Your task to perform on an android device: turn off airplane mode Image 0: 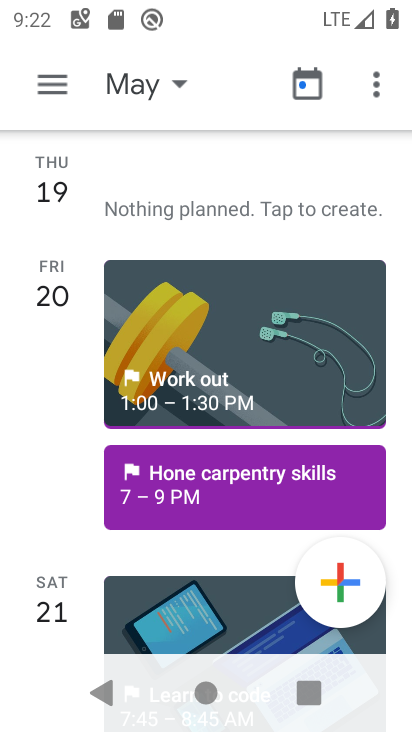
Step 0: press home button
Your task to perform on an android device: turn off airplane mode Image 1: 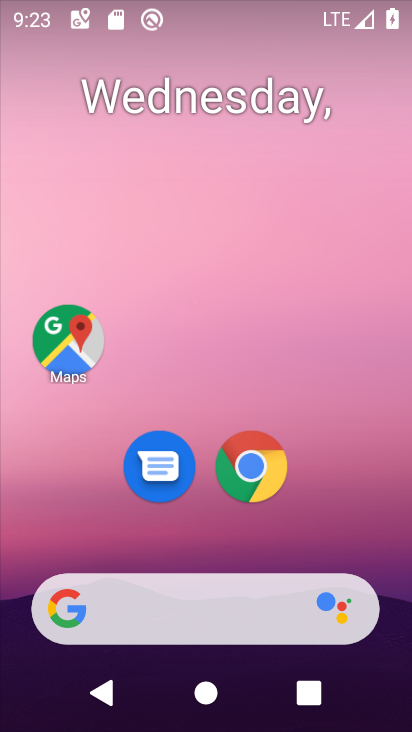
Step 1: drag from (161, 715) to (180, 195)
Your task to perform on an android device: turn off airplane mode Image 2: 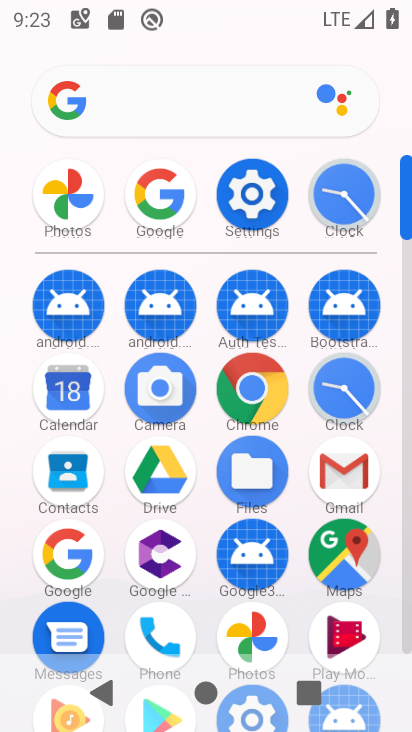
Step 2: click (257, 189)
Your task to perform on an android device: turn off airplane mode Image 3: 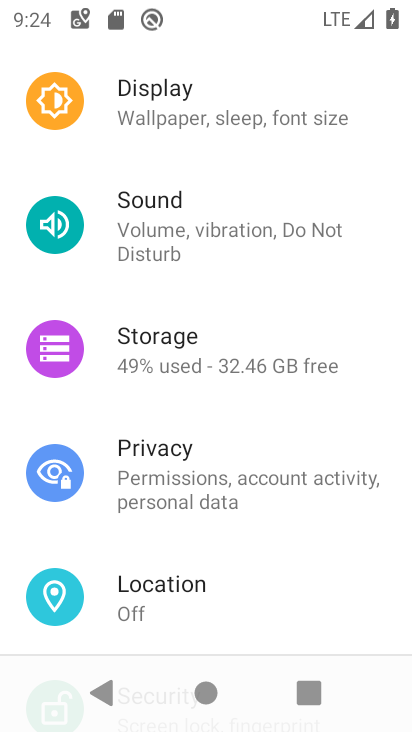
Step 3: drag from (153, 119) to (154, 524)
Your task to perform on an android device: turn off airplane mode Image 4: 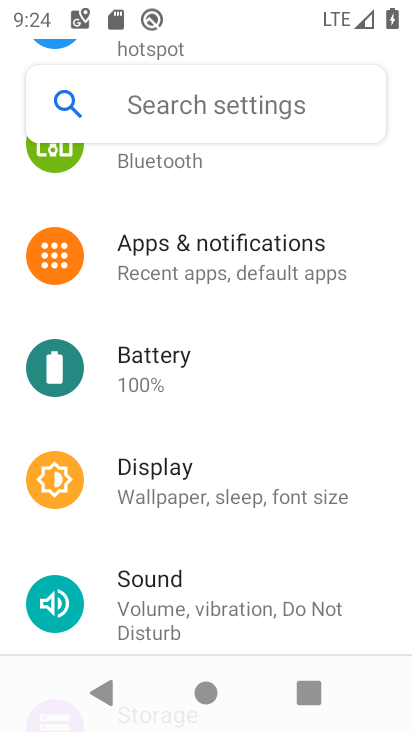
Step 4: drag from (195, 173) to (215, 558)
Your task to perform on an android device: turn off airplane mode Image 5: 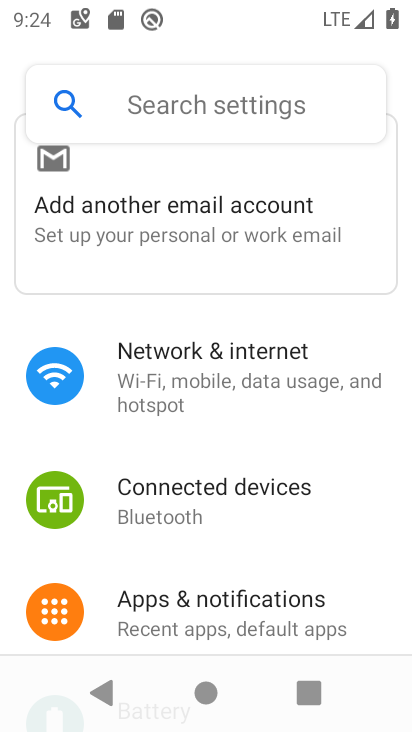
Step 5: click (167, 359)
Your task to perform on an android device: turn off airplane mode Image 6: 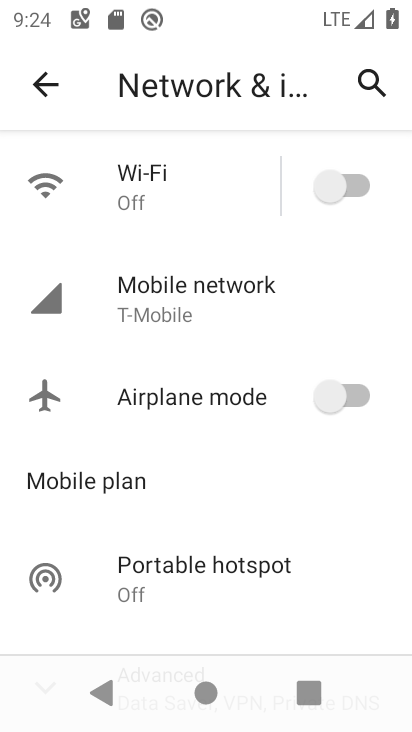
Step 6: task complete